Your task to perform on an android device: When is my next appointment? Image 0: 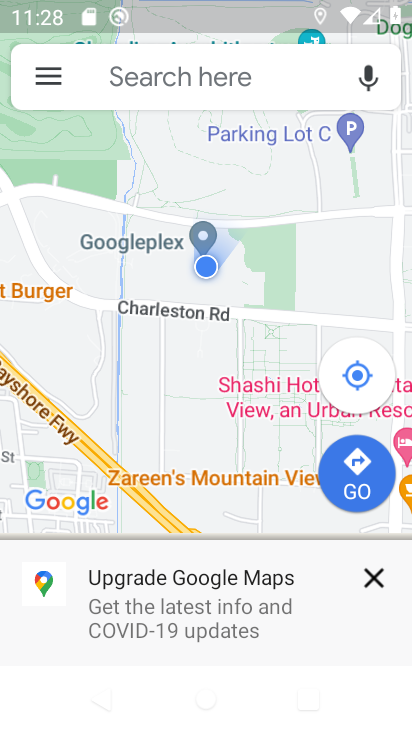
Step 0: press back button
Your task to perform on an android device: When is my next appointment? Image 1: 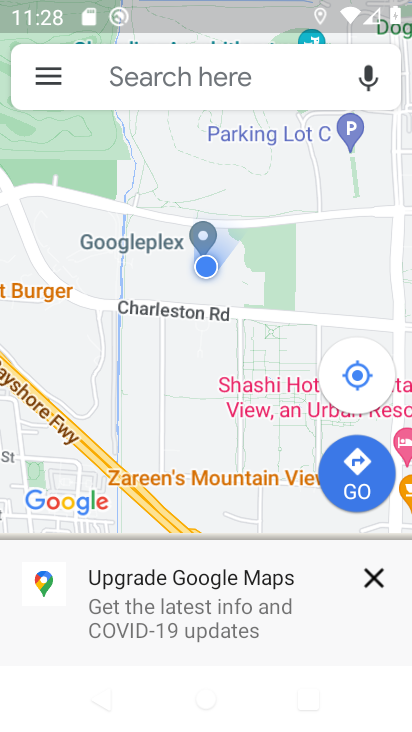
Step 1: press back button
Your task to perform on an android device: When is my next appointment? Image 2: 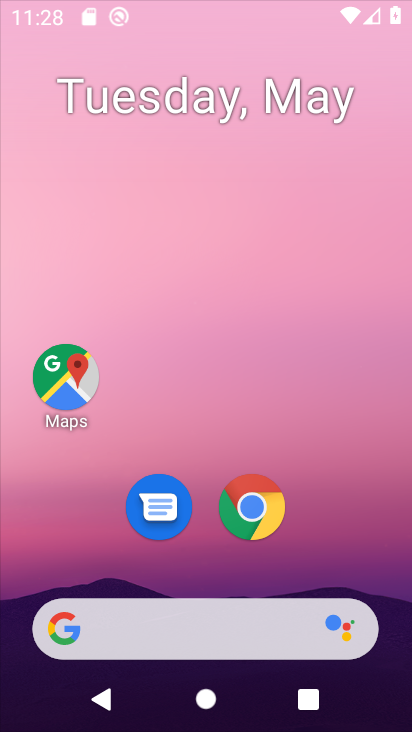
Step 2: press back button
Your task to perform on an android device: When is my next appointment? Image 3: 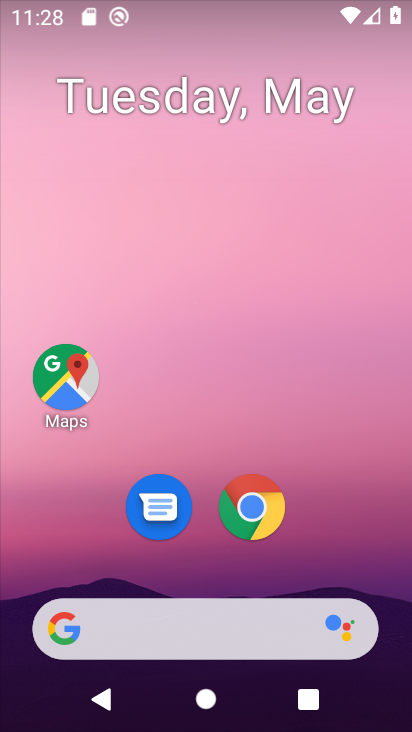
Step 3: drag from (243, 685) to (203, 82)
Your task to perform on an android device: When is my next appointment? Image 4: 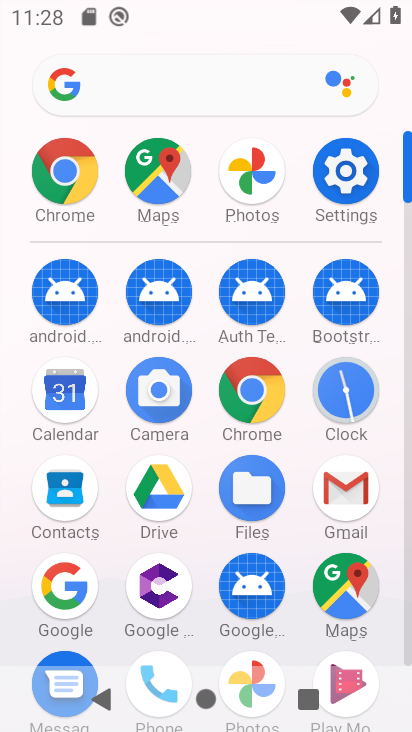
Step 4: click (63, 390)
Your task to perform on an android device: When is my next appointment? Image 5: 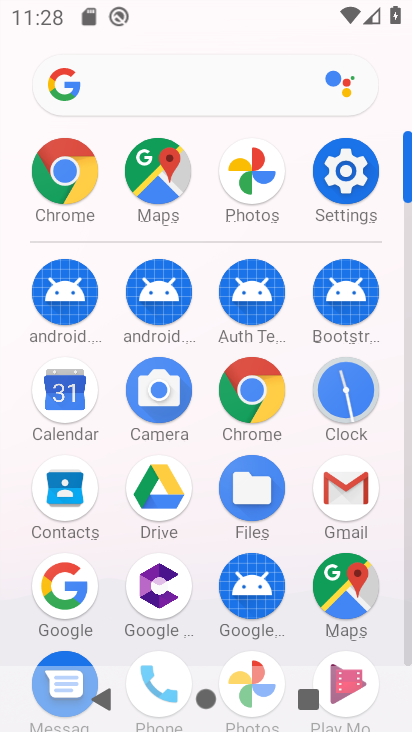
Step 5: click (63, 390)
Your task to perform on an android device: When is my next appointment? Image 6: 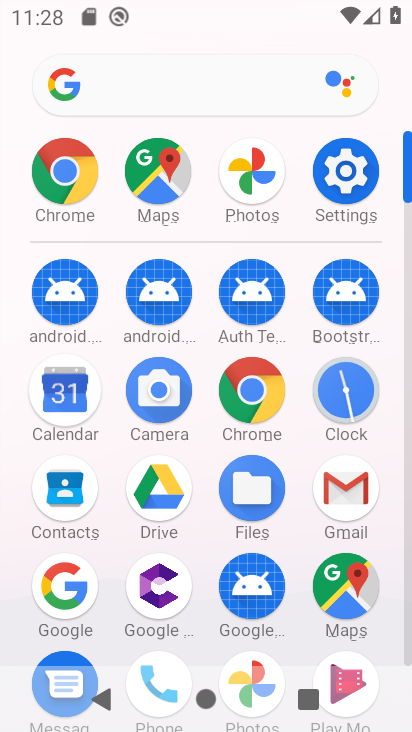
Step 6: click (62, 389)
Your task to perform on an android device: When is my next appointment? Image 7: 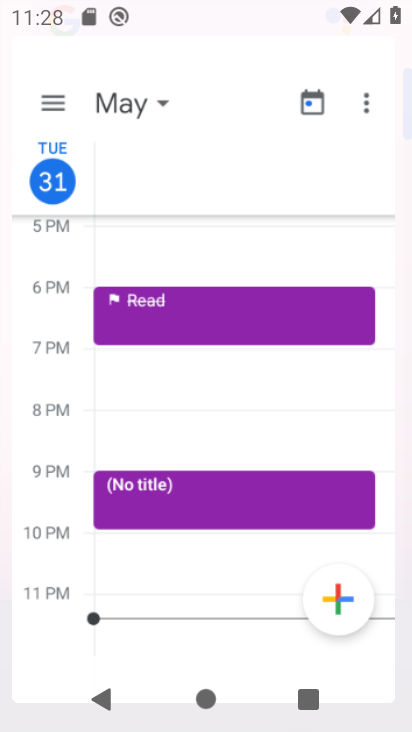
Step 7: click (65, 386)
Your task to perform on an android device: When is my next appointment? Image 8: 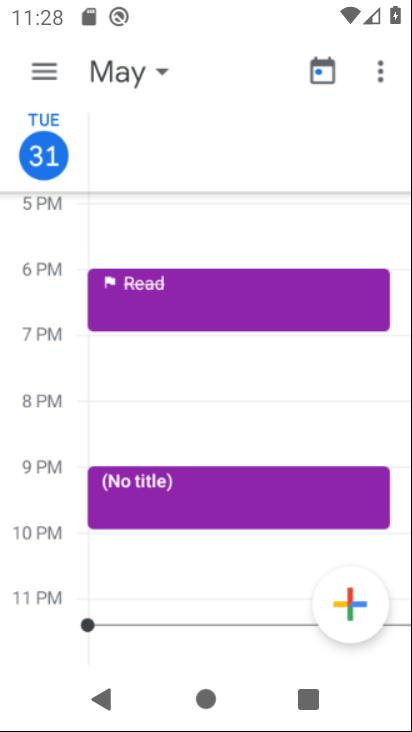
Step 8: click (69, 385)
Your task to perform on an android device: When is my next appointment? Image 9: 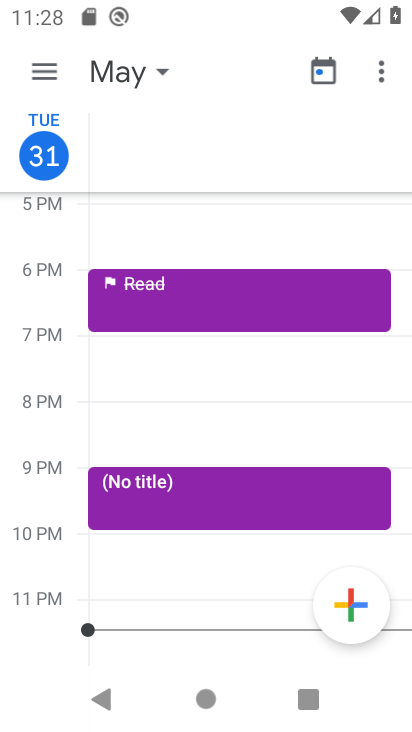
Step 9: click (158, 72)
Your task to perform on an android device: When is my next appointment? Image 10: 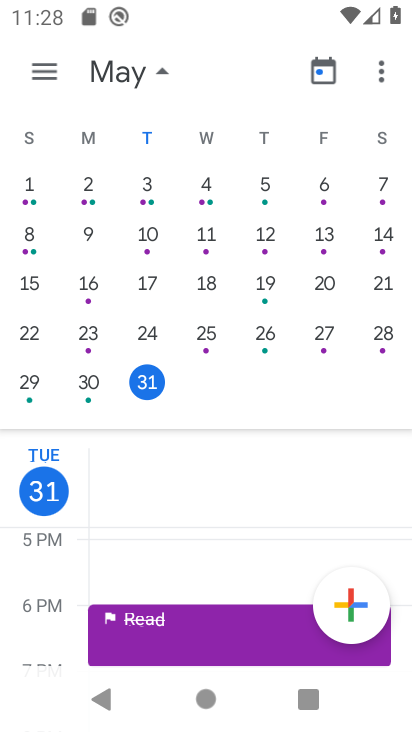
Step 10: drag from (340, 240) to (93, 303)
Your task to perform on an android device: When is my next appointment? Image 11: 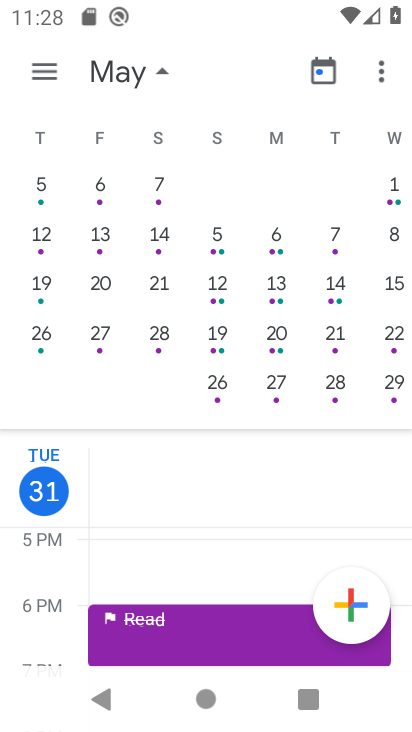
Step 11: drag from (242, 285) to (40, 439)
Your task to perform on an android device: When is my next appointment? Image 12: 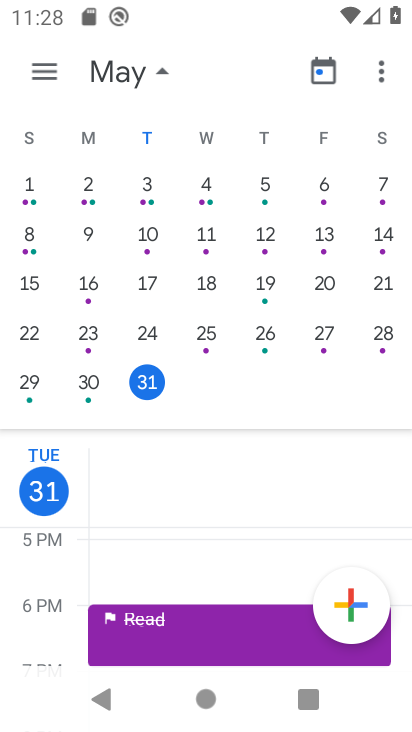
Step 12: drag from (274, 238) to (25, 394)
Your task to perform on an android device: When is my next appointment? Image 13: 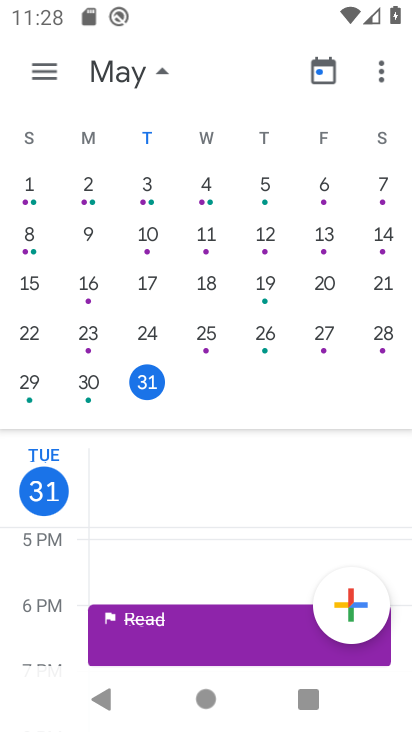
Step 13: drag from (307, 241) to (0, 389)
Your task to perform on an android device: When is my next appointment? Image 14: 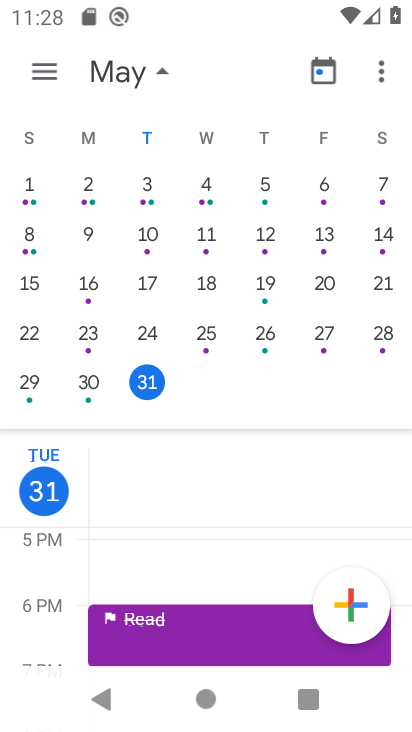
Step 14: drag from (216, 306) to (2, 316)
Your task to perform on an android device: When is my next appointment? Image 15: 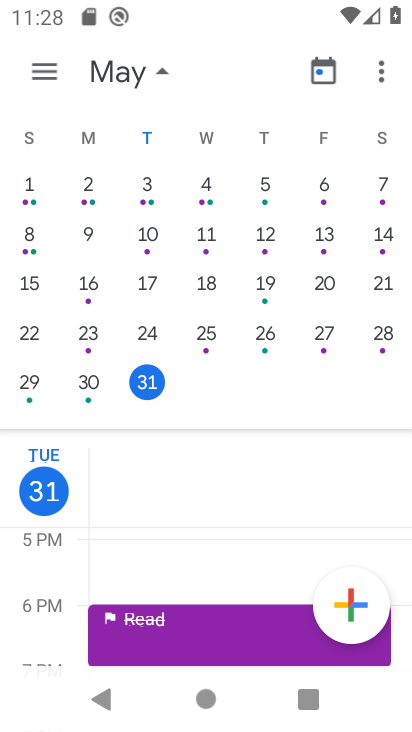
Step 15: drag from (154, 310) to (43, 343)
Your task to perform on an android device: When is my next appointment? Image 16: 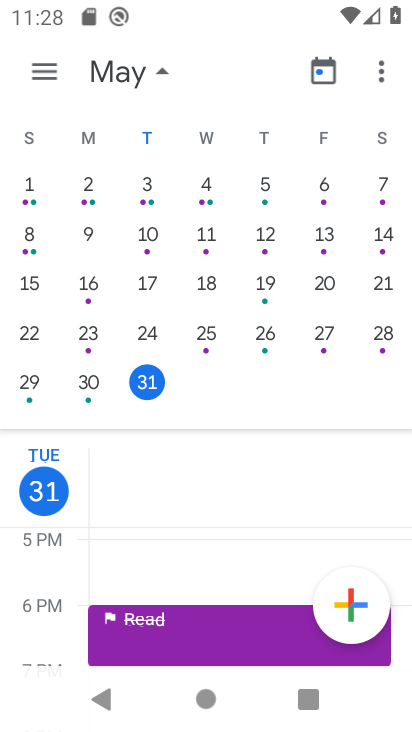
Step 16: drag from (272, 264) to (113, 414)
Your task to perform on an android device: When is my next appointment? Image 17: 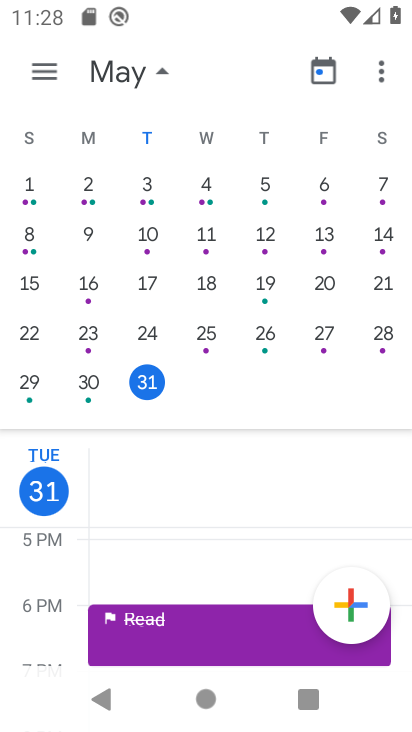
Step 17: drag from (369, 289) to (6, 357)
Your task to perform on an android device: When is my next appointment? Image 18: 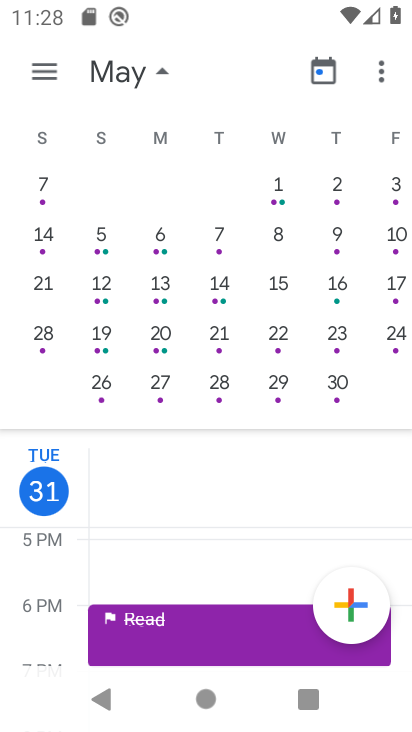
Step 18: drag from (211, 232) to (19, 346)
Your task to perform on an android device: When is my next appointment? Image 19: 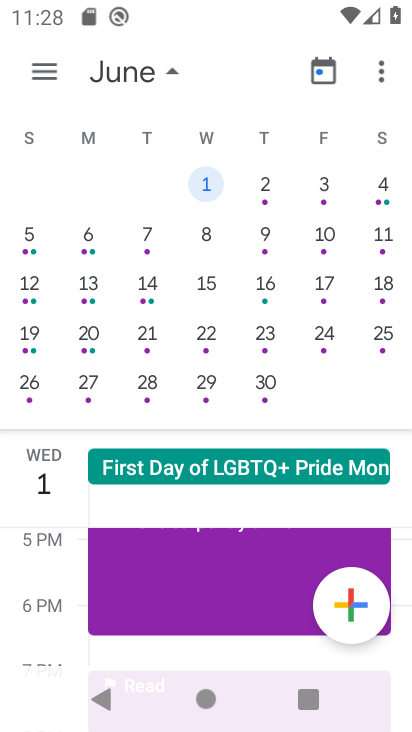
Step 19: drag from (203, 251) to (13, 398)
Your task to perform on an android device: When is my next appointment? Image 20: 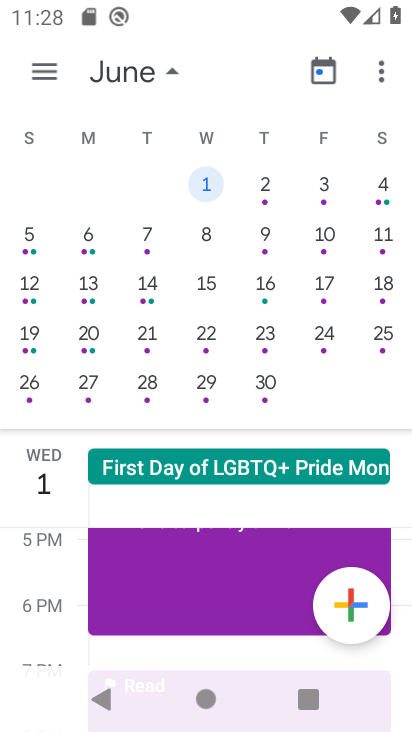
Step 20: drag from (192, 536) to (181, 174)
Your task to perform on an android device: When is my next appointment? Image 21: 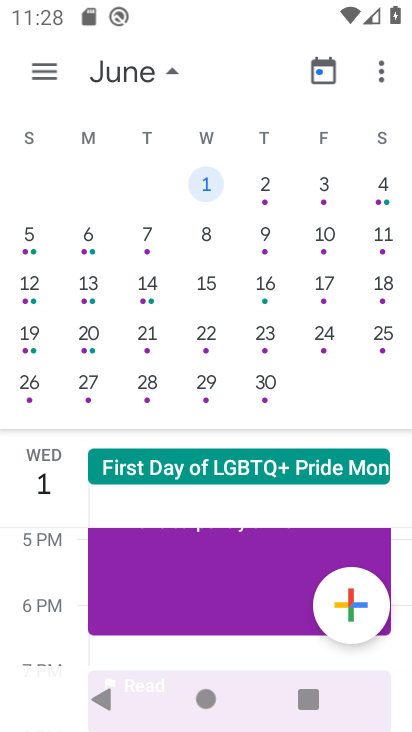
Step 21: drag from (256, 508) to (252, 166)
Your task to perform on an android device: When is my next appointment? Image 22: 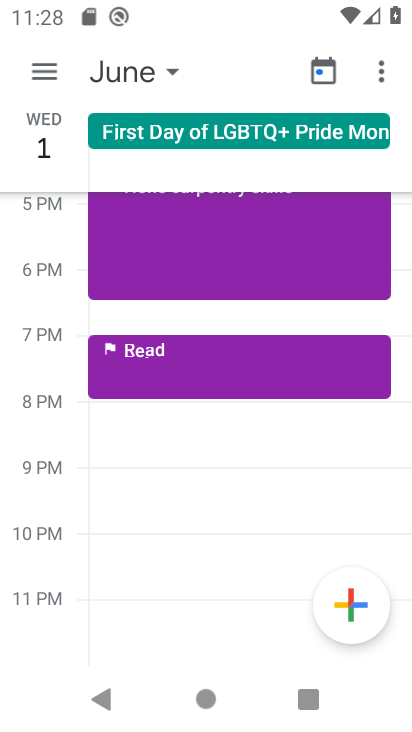
Step 22: drag from (250, 518) to (219, 135)
Your task to perform on an android device: When is my next appointment? Image 23: 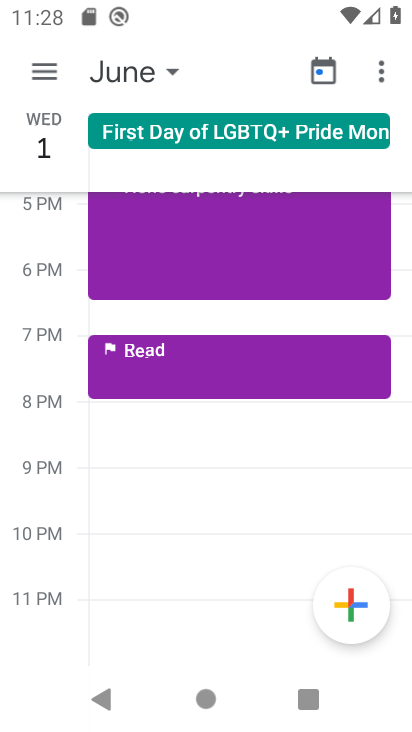
Step 23: drag from (230, 515) to (225, 144)
Your task to perform on an android device: When is my next appointment? Image 24: 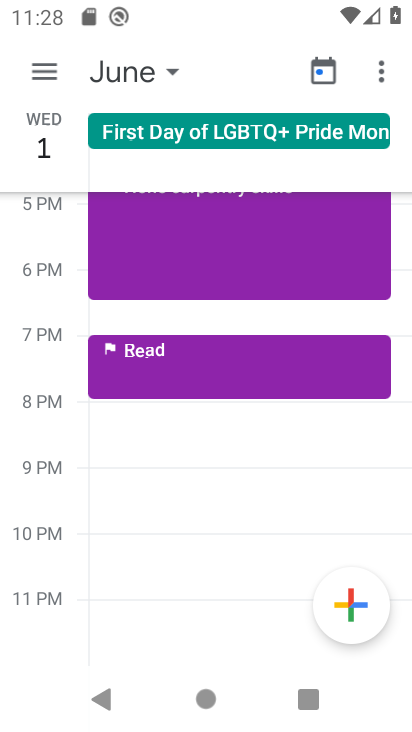
Step 24: drag from (187, 502) to (167, 228)
Your task to perform on an android device: When is my next appointment? Image 25: 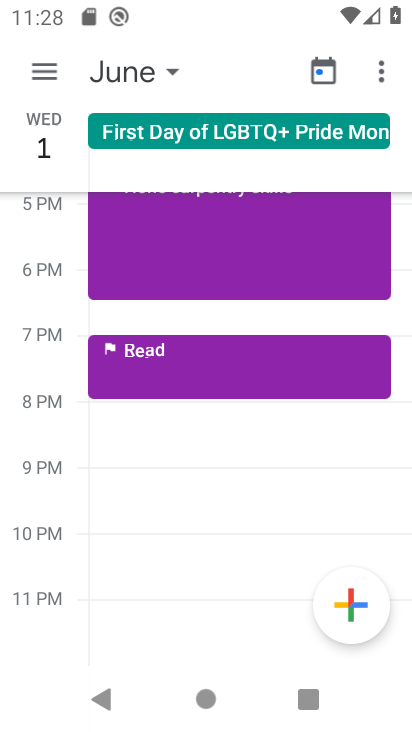
Step 25: click (49, 76)
Your task to perform on an android device: When is my next appointment? Image 26: 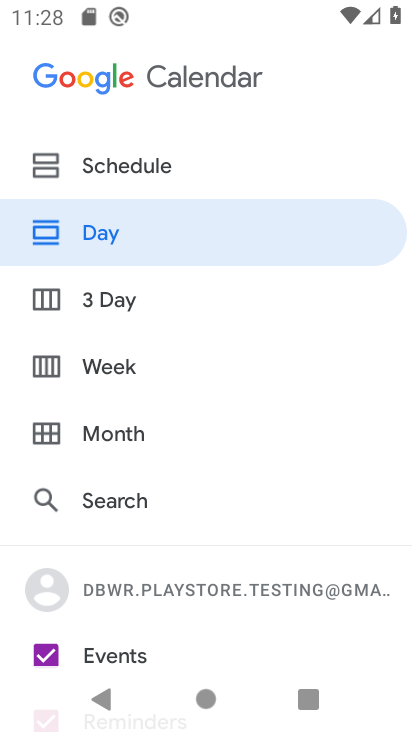
Step 26: click (124, 174)
Your task to perform on an android device: When is my next appointment? Image 27: 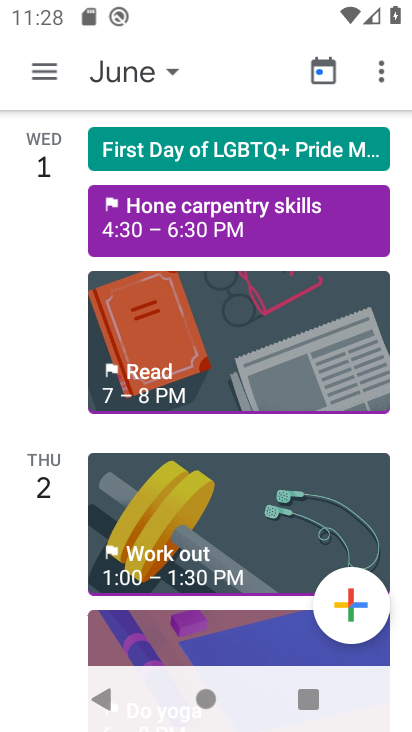
Step 27: task complete